Your task to perform on an android device: Open Google Maps Image 0: 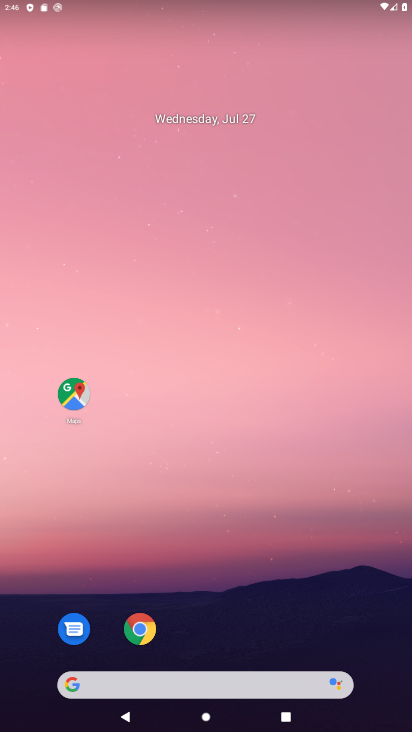
Step 0: click (60, 406)
Your task to perform on an android device: Open Google Maps Image 1: 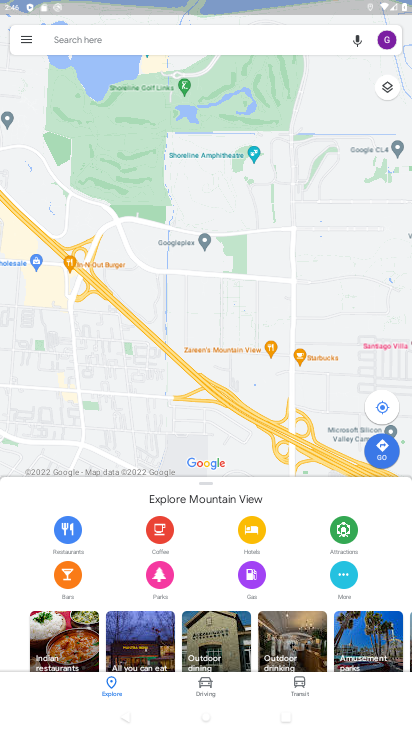
Step 1: task complete